Your task to perform on an android device: check google app version Image 0: 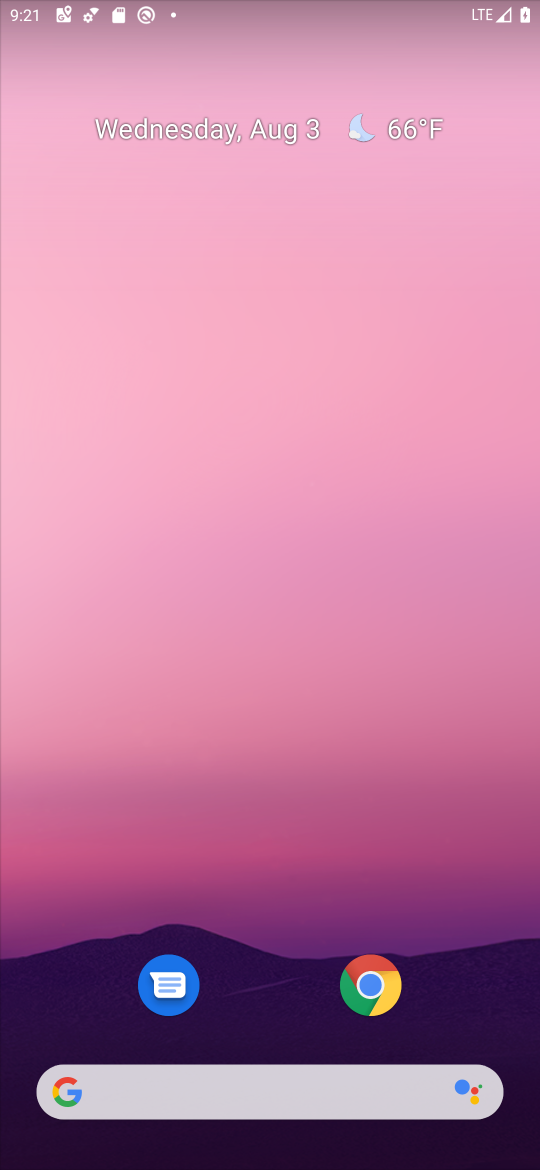
Step 0: drag from (257, 979) to (298, 309)
Your task to perform on an android device: check google app version Image 1: 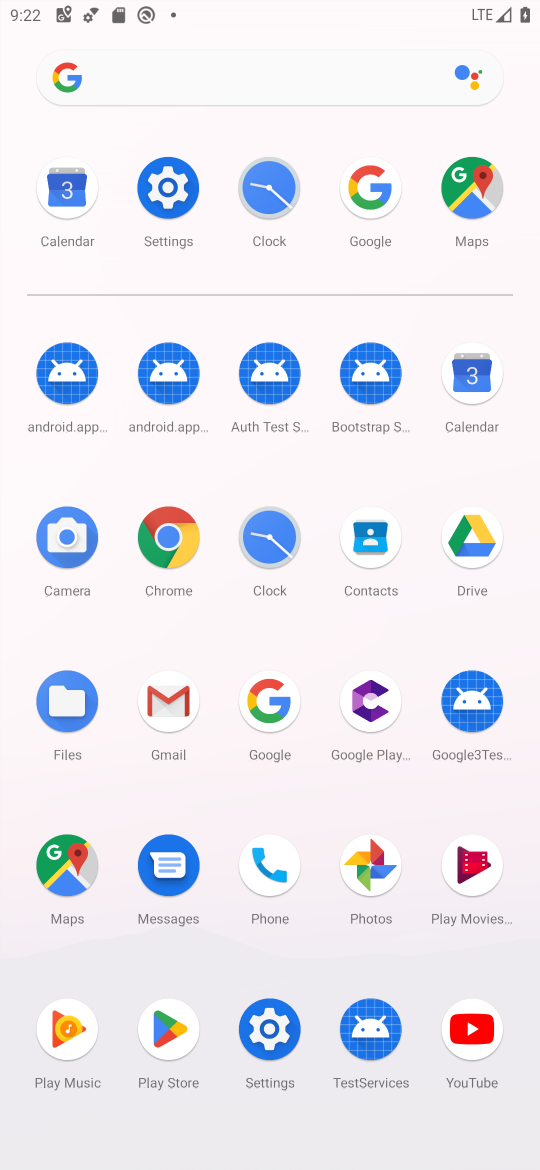
Step 1: click (372, 194)
Your task to perform on an android device: check google app version Image 2: 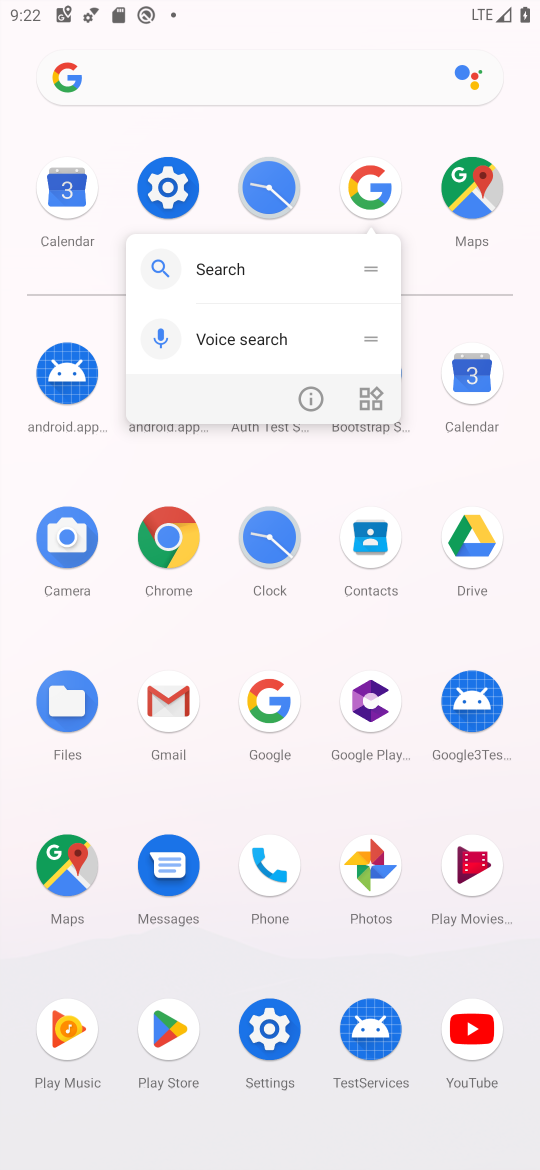
Step 2: click (372, 194)
Your task to perform on an android device: check google app version Image 3: 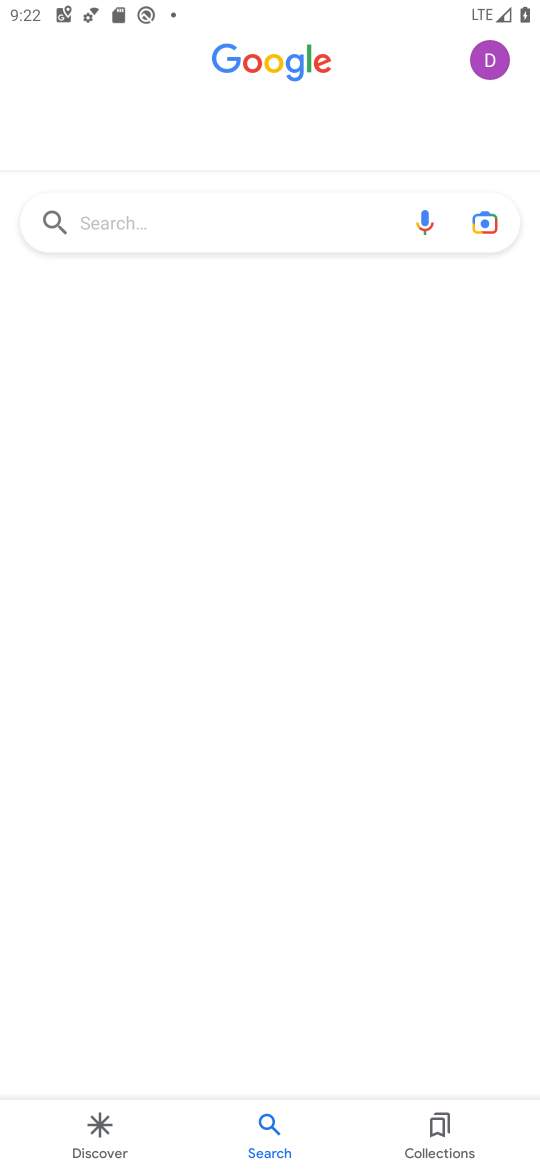
Step 3: click (486, 63)
Your task to perform on an android device: check google app version Image 4: 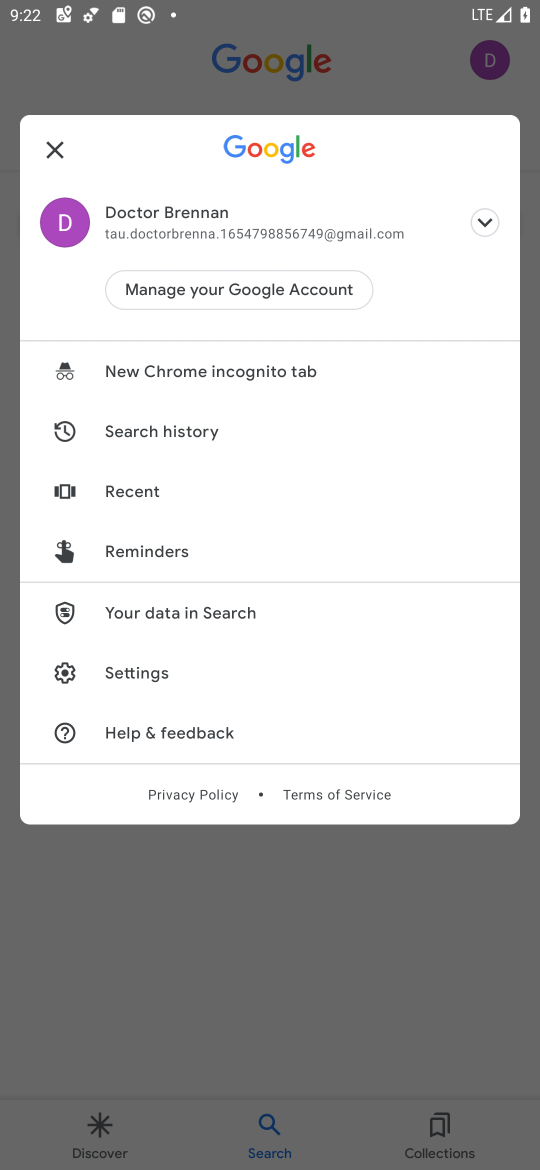
Step 4: click (112, 673)
Your task to perform on an android device: check google app version Image 5: 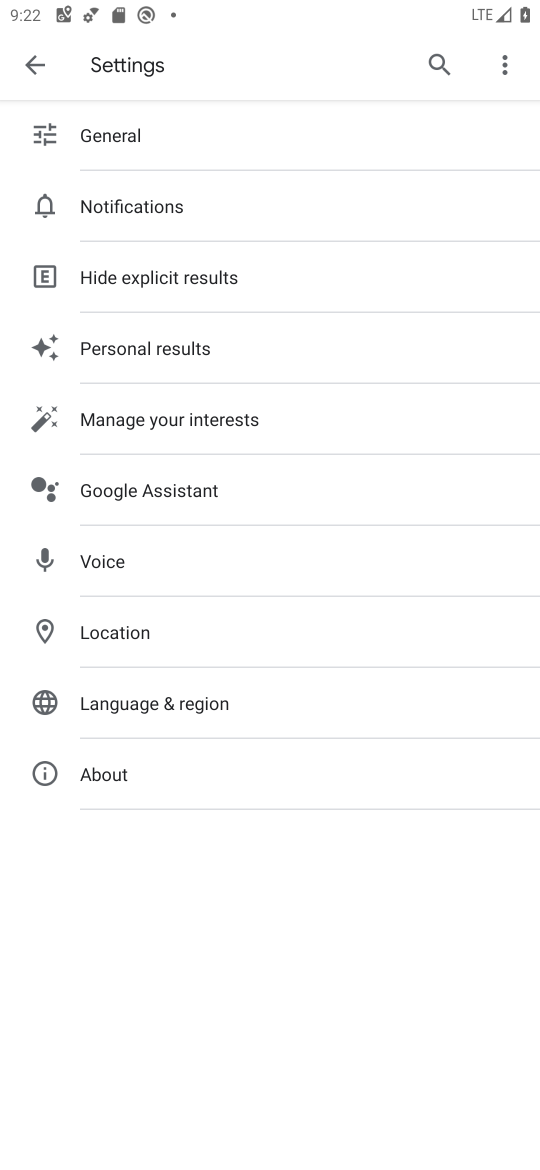
Step 5: click (112, 767)
Your task to perform on an android device: check google app version Image 6: 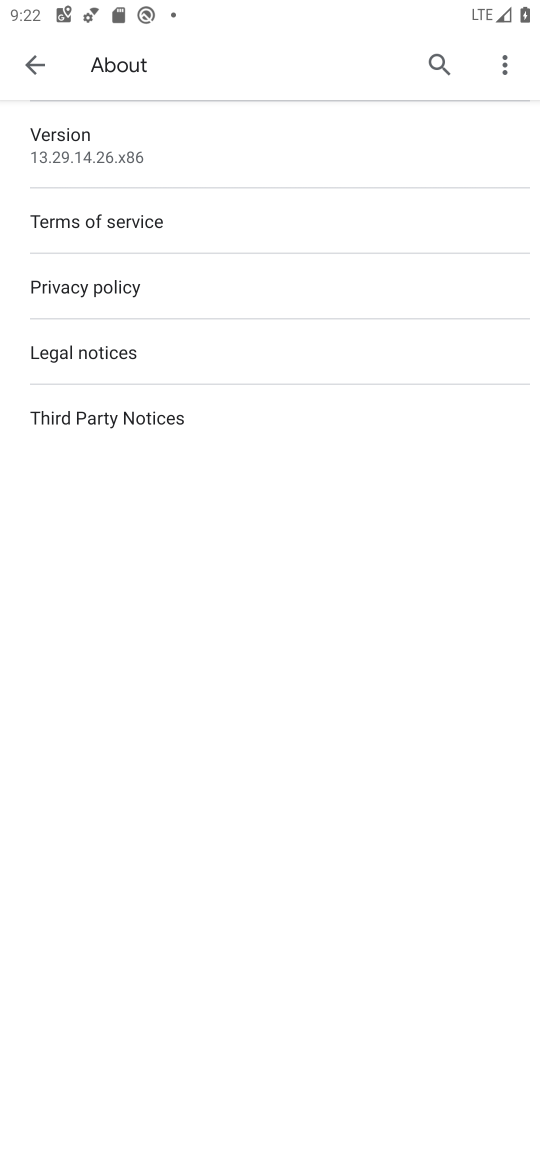
Step 6: click (94, 174)
Your task to perform on an android device: check google app version Image 7: 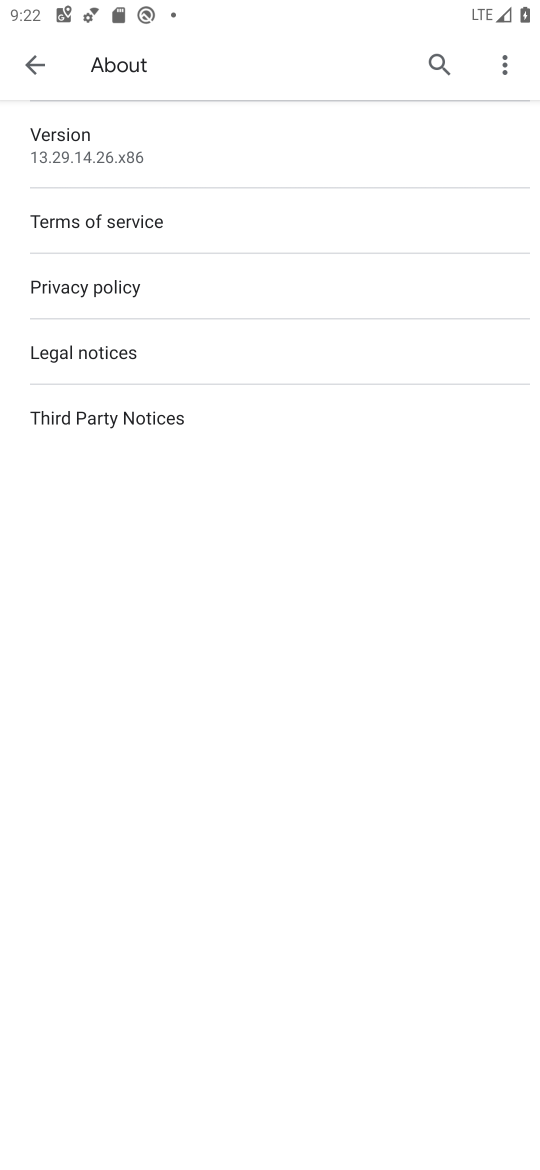
Step 7: click (109, 160)
Your task to perform on an android device: check google app version Image 8: 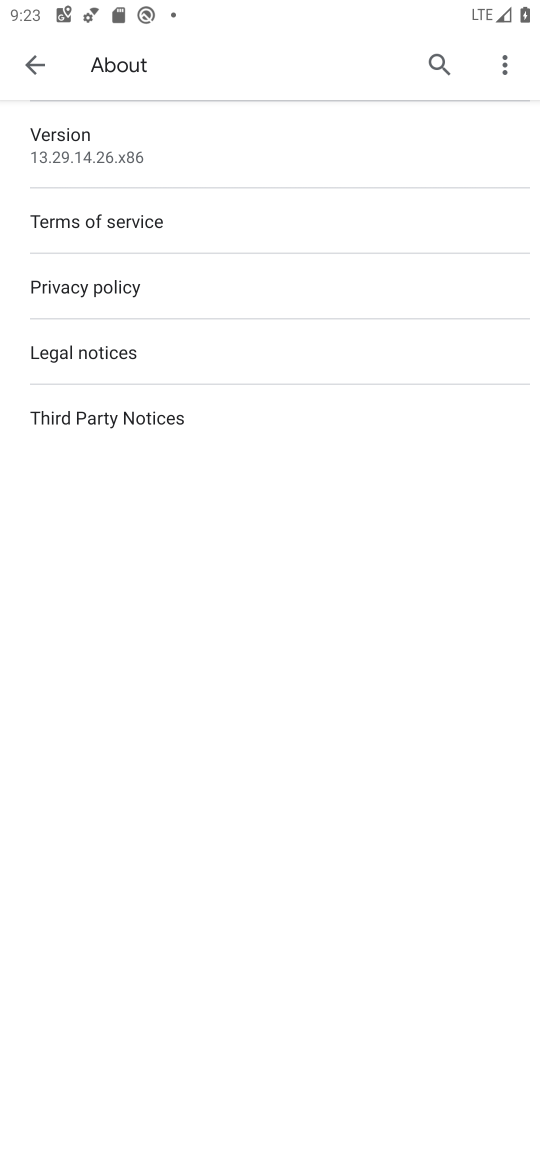
Step 8: click (168, 167)
Your task to perform on an android device: check google app version Image 9: 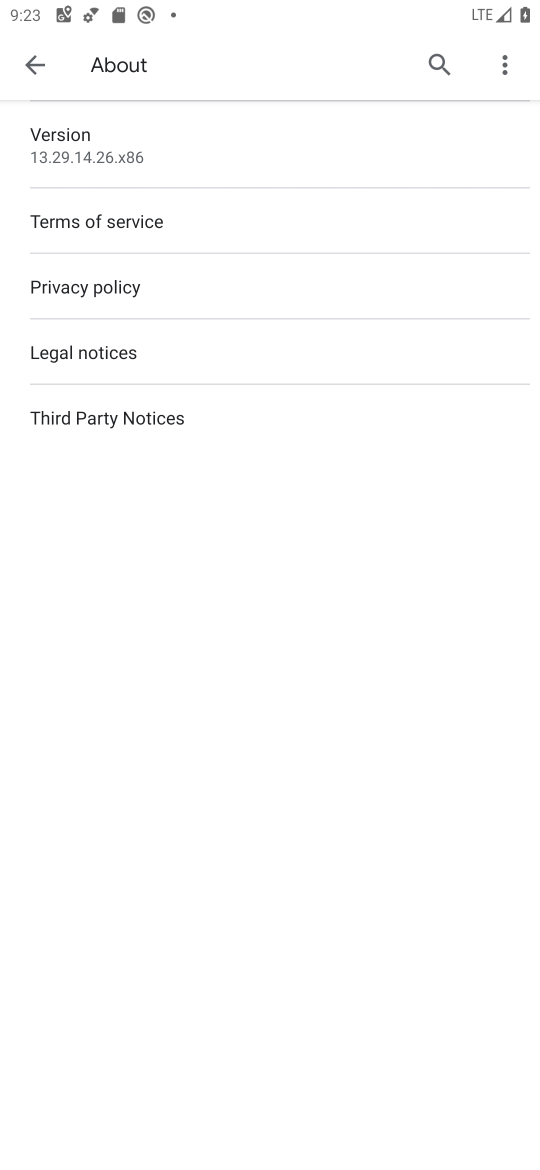
Step 9: task complete